Your task to perform on an android device: Go to Google Image 0: 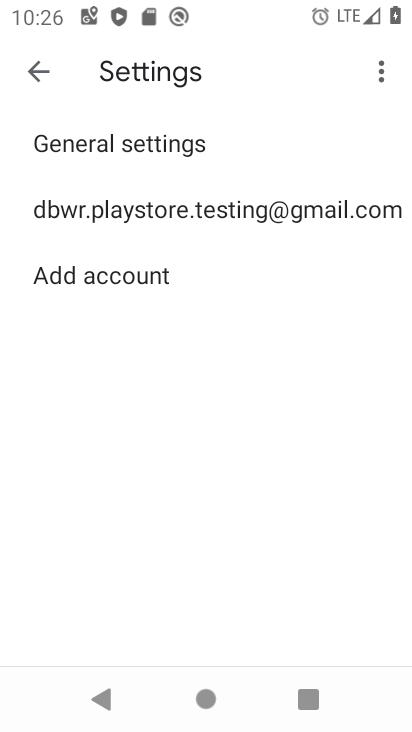
Step 0: press home button
Your task to perform on an android device: Go to Google Image 1: 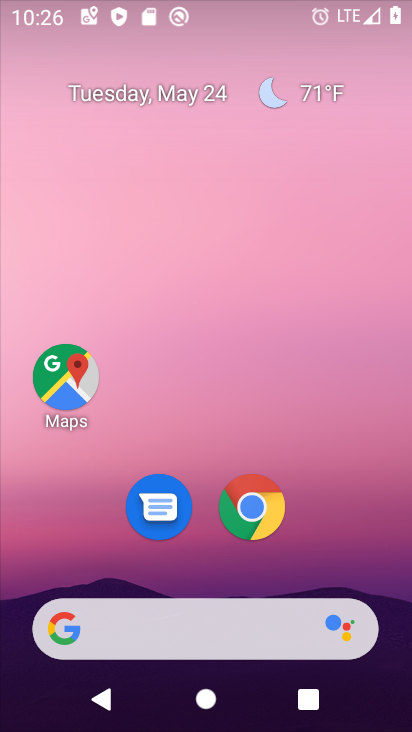
Step 1: drag from (230, 698) to (218, 200)
Your task to perform on an android device: Go to Google Image 2: 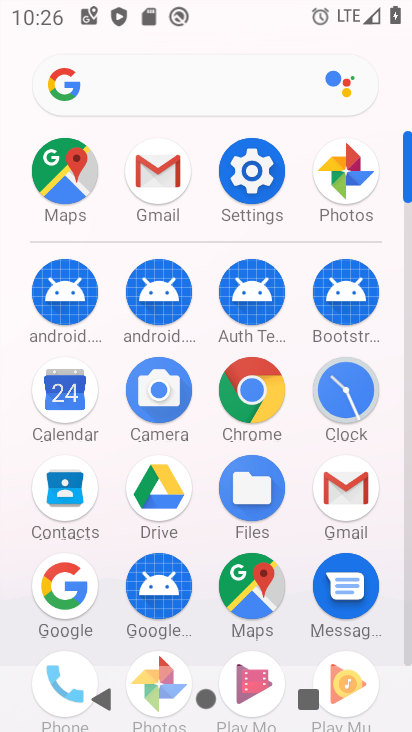
Step 2: click (59, 589)
Your task to perform on an android device: Go to Google Image 3: 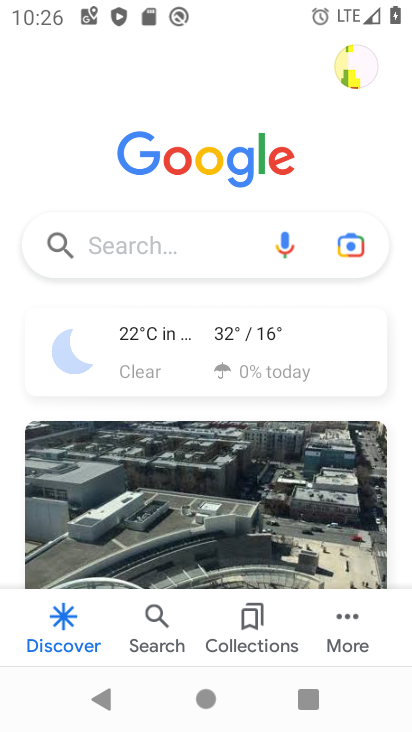
Step 3: task complete